Your task to perform on an android device: Open battery settings Image 0: 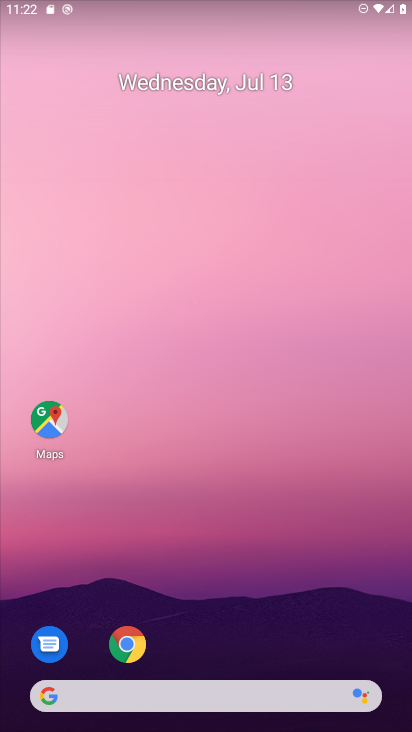
Step 0: drag from (279, 565) to (241, 150)
Your task to perform on an android device: Open battery settings Image 1: 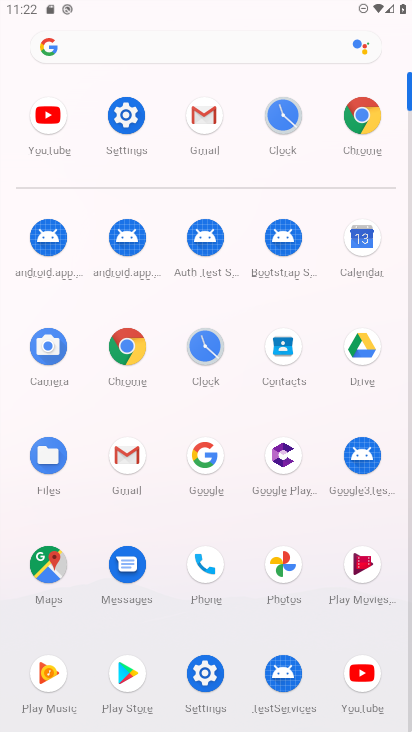
Step 1: click (126, 109)
Your task to perform on an android device: Open battery settings Image 2: 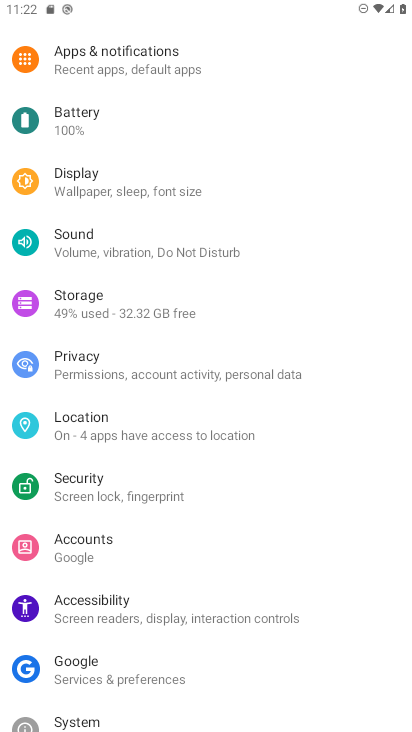
Step 2: click (90, 112)
Your task to perform on an android device: Open battery settings Image 3: 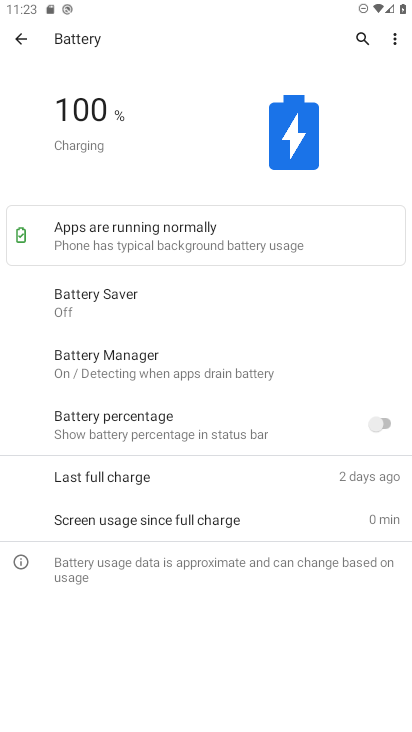
Step 3: task complete